Your task to perform on an android device: Check the news Image 0: 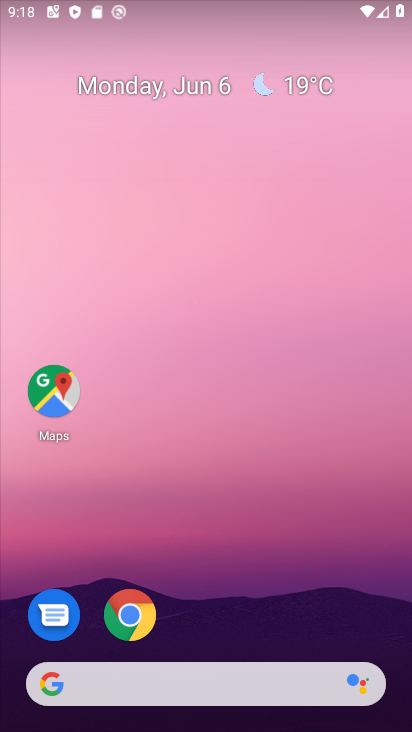
Step 0: click (194, 674)
Your task to perform on an android device: Check the news Image 1: 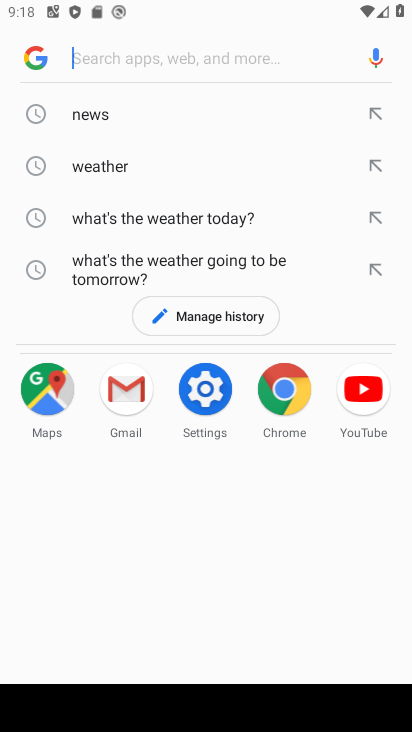
Step 1: click (168, 117)
Your task to perform on an android device: Check the news Image 2: 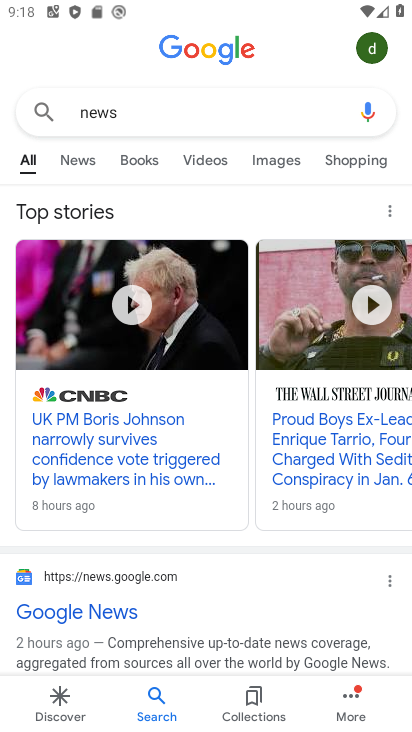
Step 2: click (63, 161)
Your task to perform on an android device: Check the news Image 3: 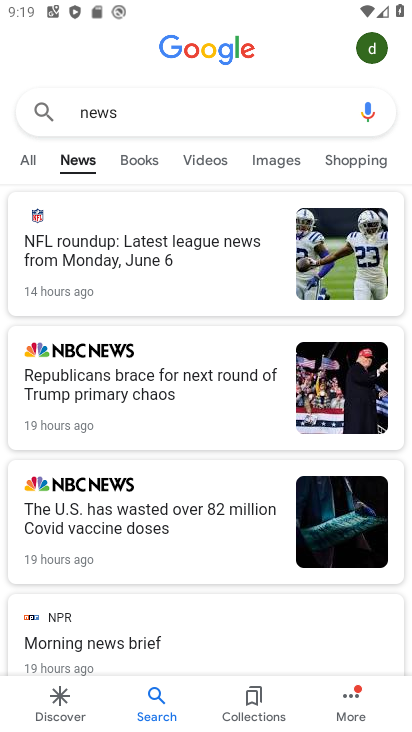
Step 3: task complete